Your task to perform on an android device: show emergency info Image 0: 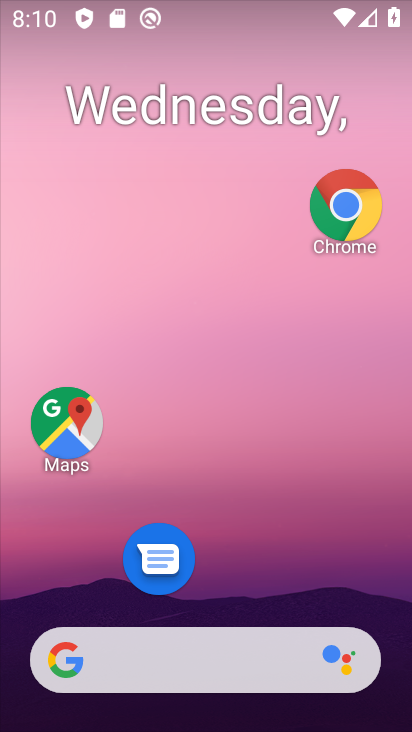
Step 0: drag from (246, 415) to (339, 183)
Your task to perform on an android device: show emergency info Image 1: 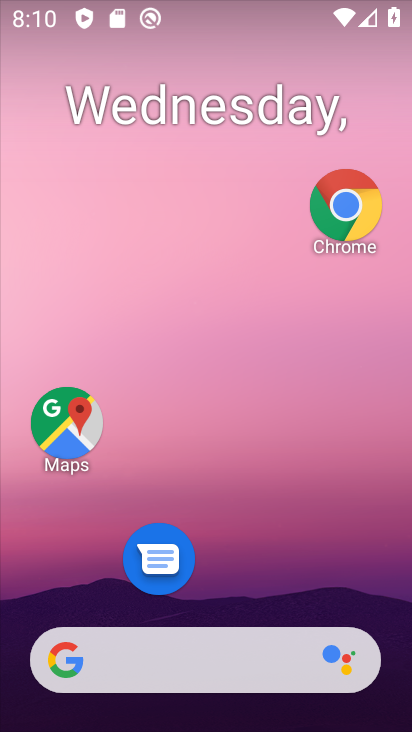
Step 1: drag from (228, 603) to (363, 90)
Your task to perform on an android device: show emergency info Image 2: 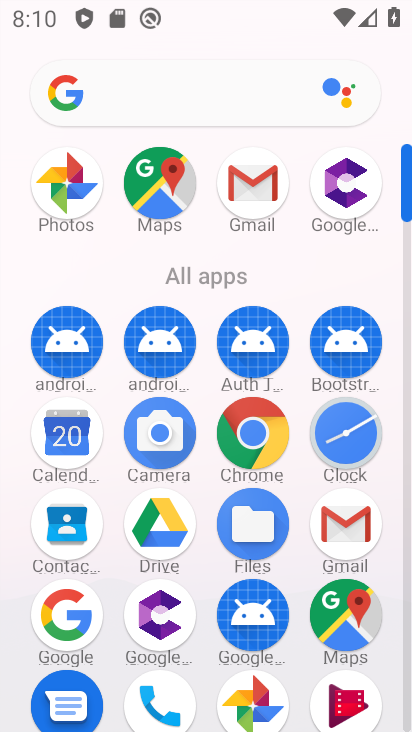
Step 2: drag from (211, 574) to (237, 308)
Your task to perform on an android device: show emergency info Image 3: 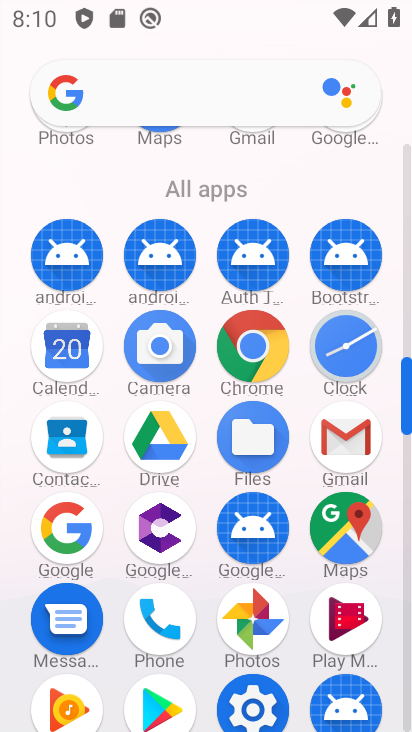
Step 3: drag from (199, 659) to (231, 470)
Your task to perform on an android device: show emergency info Image 4: 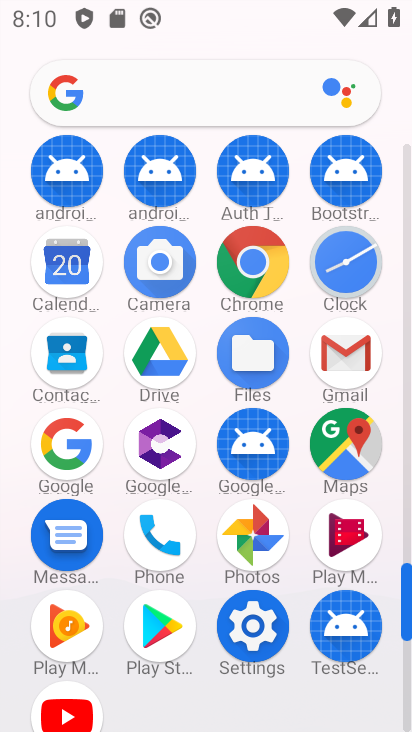
Step 4: click (259, 615)
Your task to perform on an android device: show emergency info Image 5: 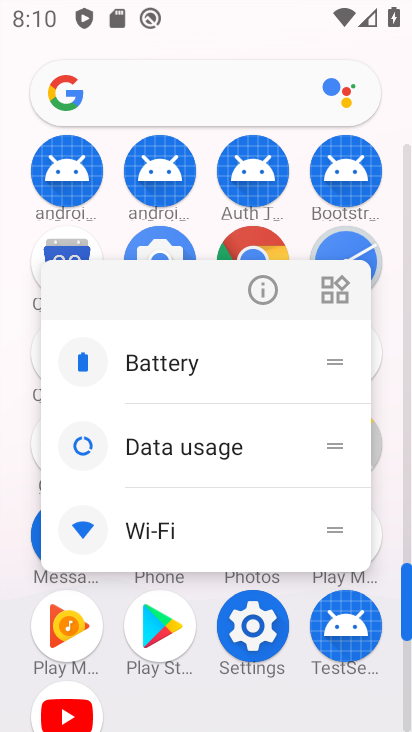
Step 5: click (265, 290)
Your task to perform on an android device: show emergency info Image 6: 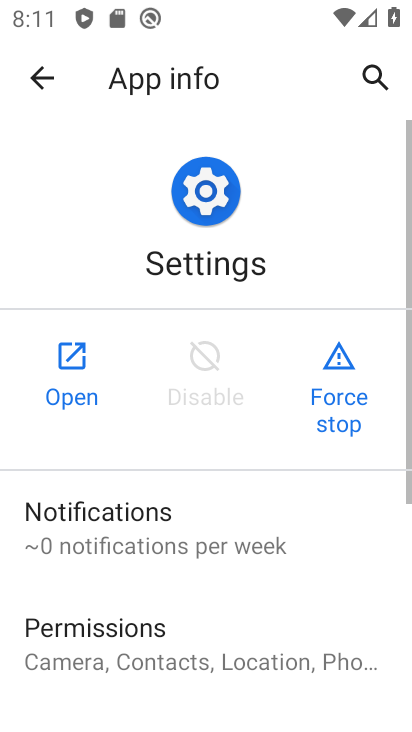
Step 6: click (82, 361)
Your task to perform on an android device: show emergency info Image 7: 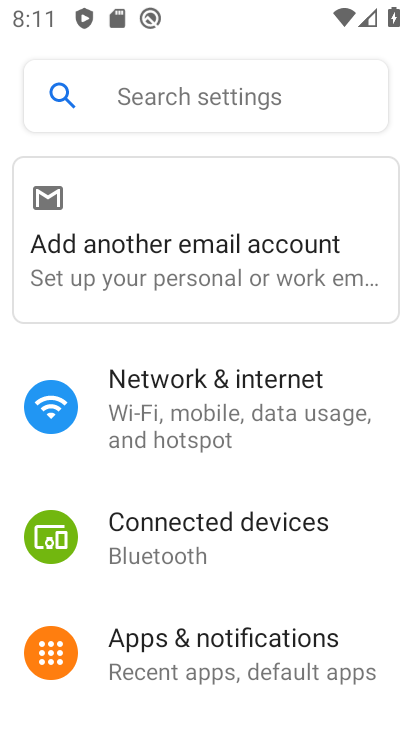
Step 7: drag from (182, 650) to (303, 187)
Your task to perform on an android device: show emergency info Image 8: 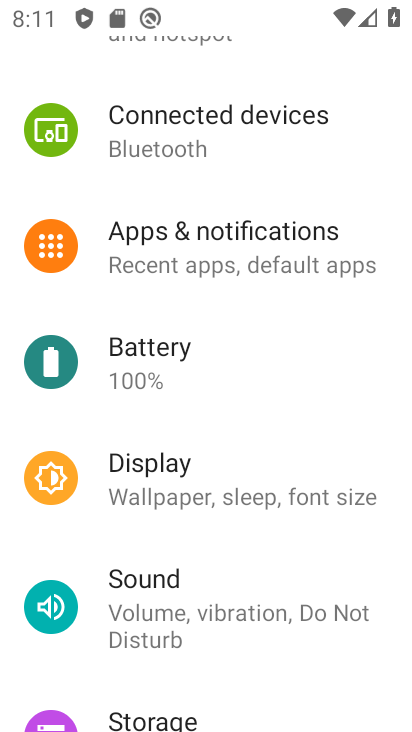
Step 8: drag from (179, 685) to (246, 186)
Your task to perform on an android device: show emergency info Image 9: 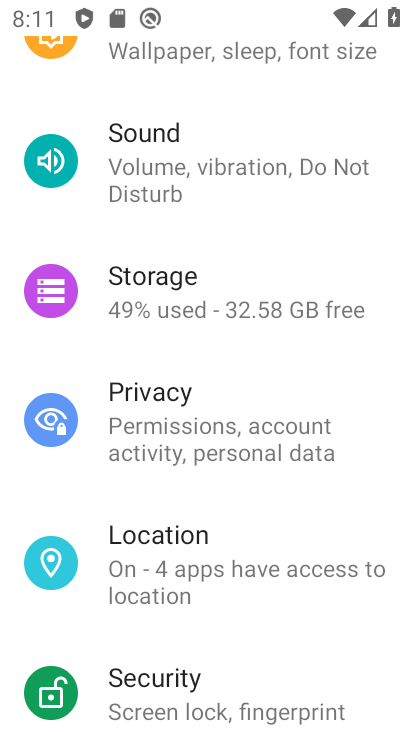
Step 9: drag from (230, 627) to (316, 260)
Your task to perform on an android device: show emergency info Image 10: 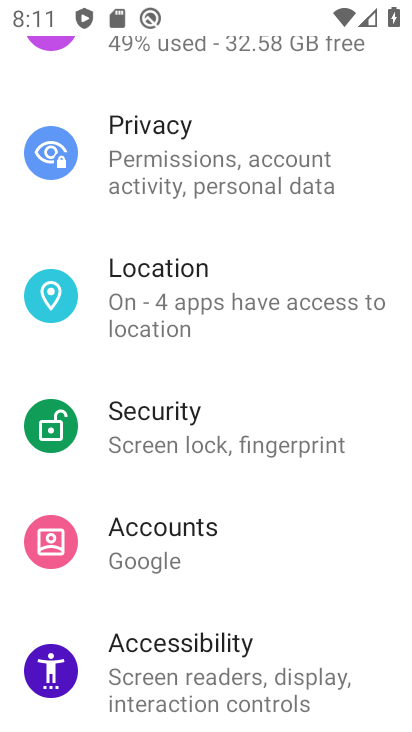
Step 10: drag from (206, 696) to (284, 5)
Your task to perform on an android device: show emergency info Image 11: 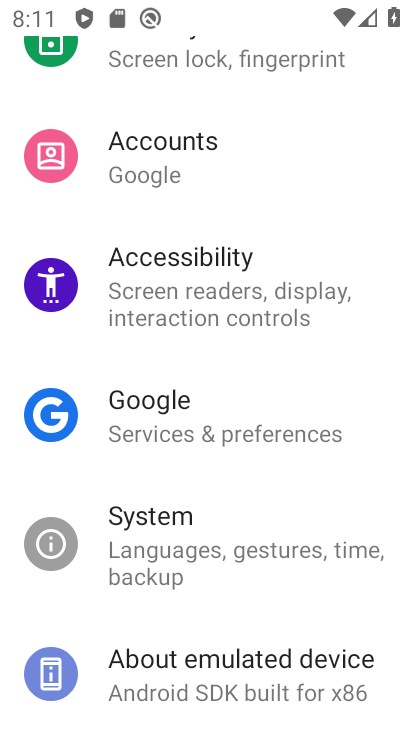
Step 11: click (175, 674)
Your task to perform on an android device: show emergency info Image 12: 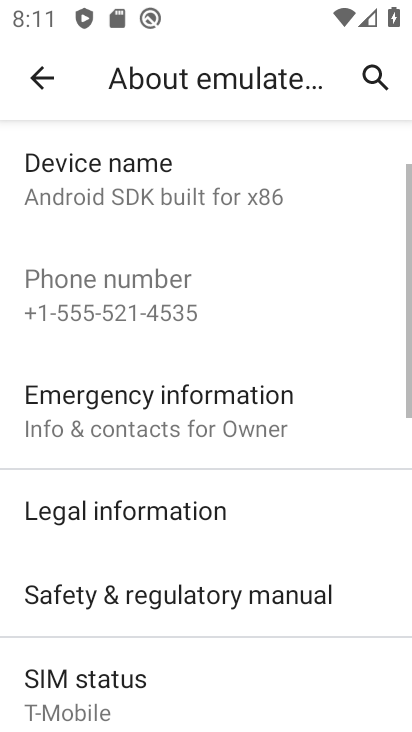
Step 12: click (187, 405)
Your task to perform on an android device: show emergency info Image 13: 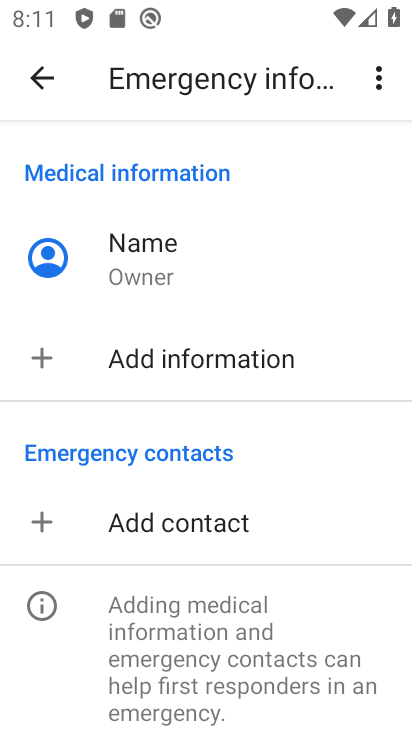
Step 13: task complete